Your task to perform on an android device: turn off priority inbox in the gmail app Image 0: 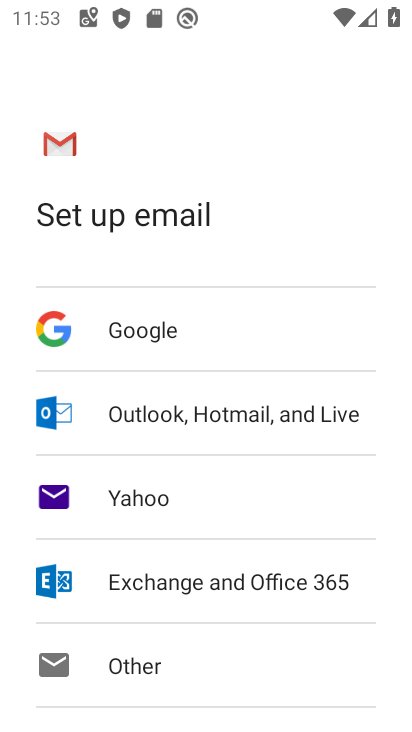
Step 0: press back button
Your task to perform on an android device: turn off priority inbox in the gmail app Image 1: 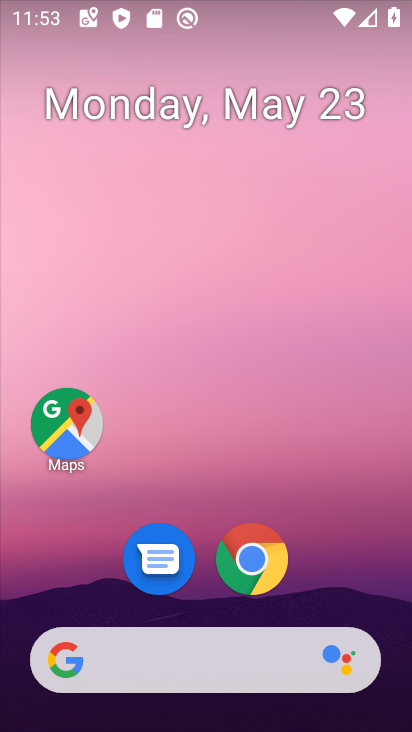
Step 1: drag from (286, 423) to (228, 2)
Your task to perform on an android device: turn off priority inbox in the gmail app Image 2: 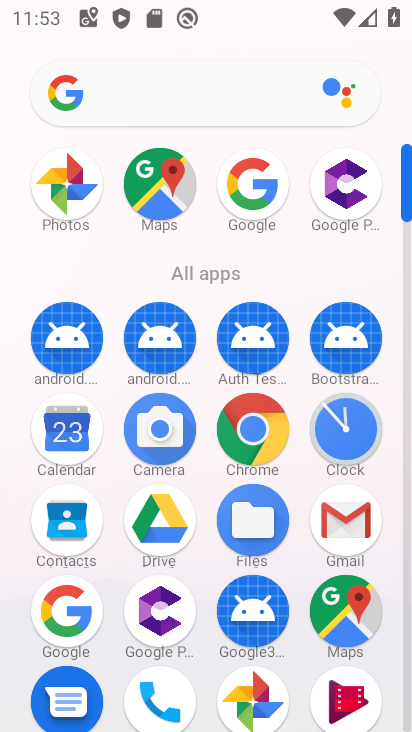
Step 2: click (343, 524)
Your task to perform on an android device: turn off priority inbox in the gmail app Image 3: 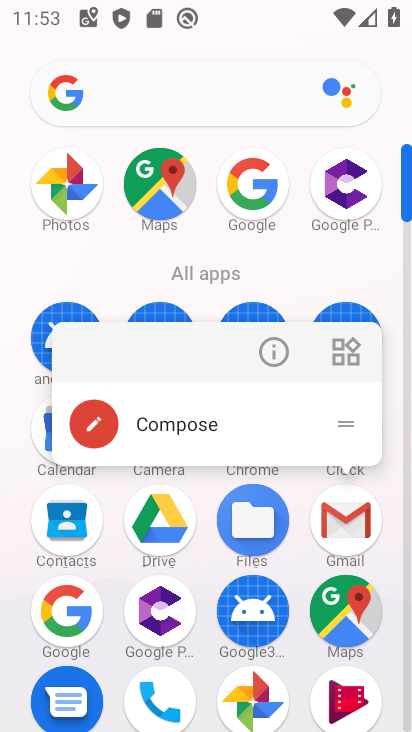
Step 3: click (349, 514)
Your task to perform on an android device: turn off priority inbox in the gmail app Image 4: 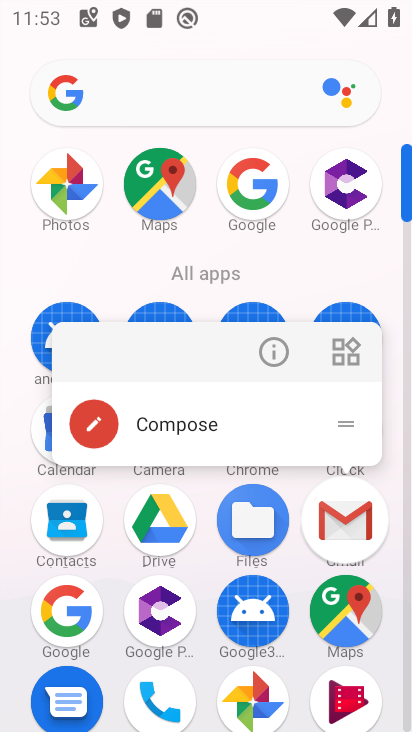
Step 4: click (349, 514)
Your task to perform on an android device: turn off priority inbox in the gmail app Image 5: 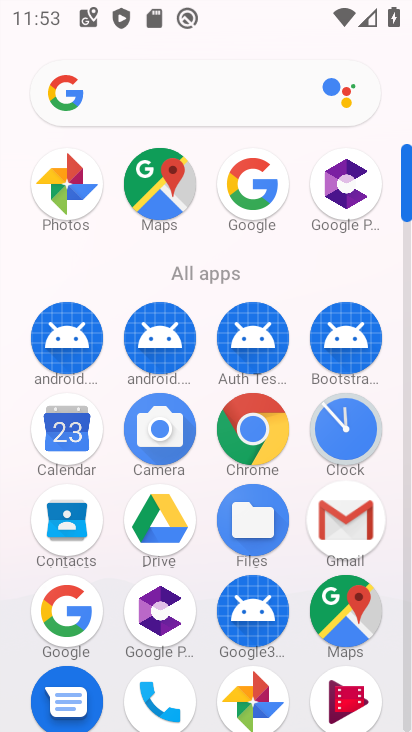
Step 5: click (349, 514)
Your task to perform on an android device: turn off priority inbox in the gmail app Image 6: 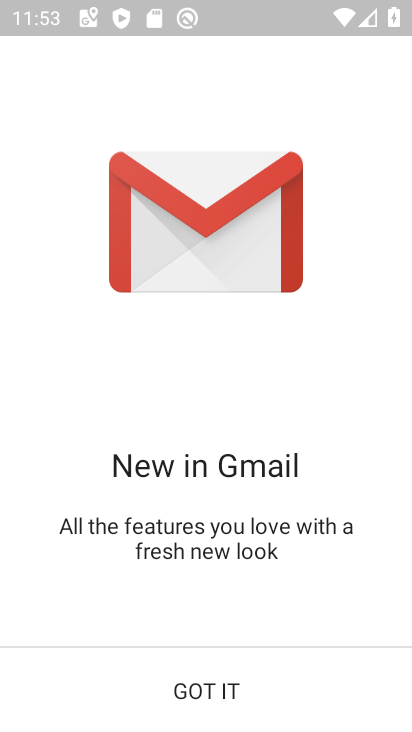
Step 6: click (197, 667)
Your task to perform on an android device: turn off priority inbox in the gmail app Image 7: 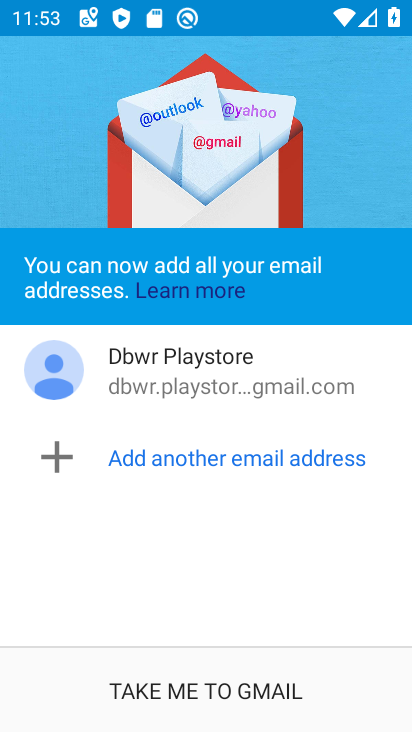
Step 7: click (235, 687)
Your task to perform on an android device: turn off priority inbox in the gmail app Image 8: 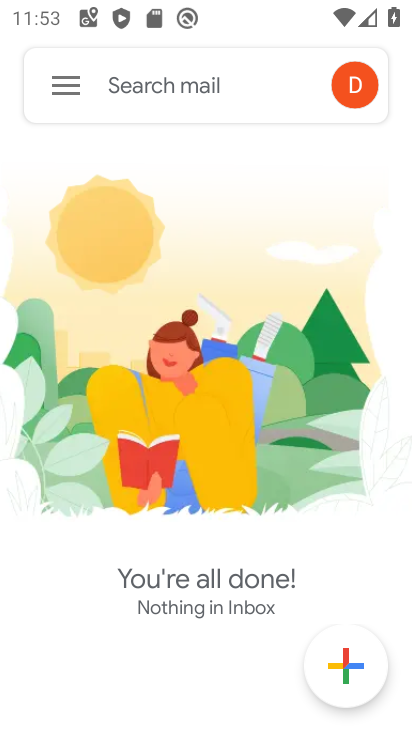
Step 8: click (58, 99)
Your task to perform on an android device: turn off priority inbox in the gmail app Image 9: 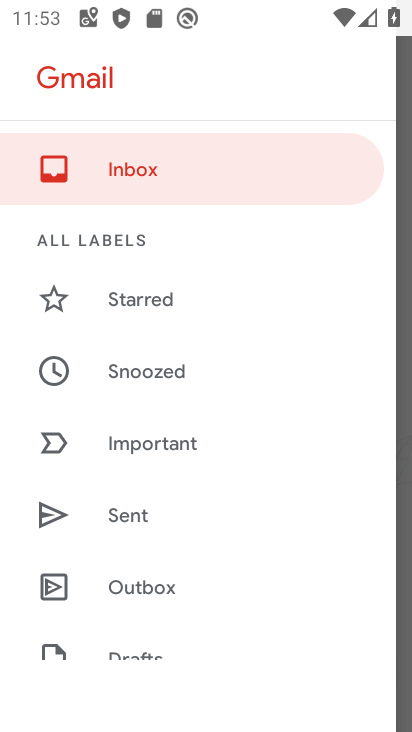
Step 9: drag from (156, 542) to (107, 196)
Your task to perform on an android device: turn off priority inbox in the gmail app Image 10: 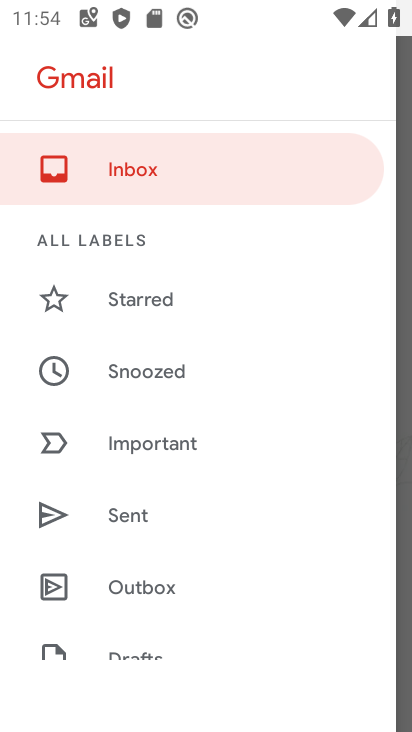
Step 10: drag from (123, 599) to (195, 303)
Your task to perform on an android device: turn off priority inbox in the gmail app Image 11: 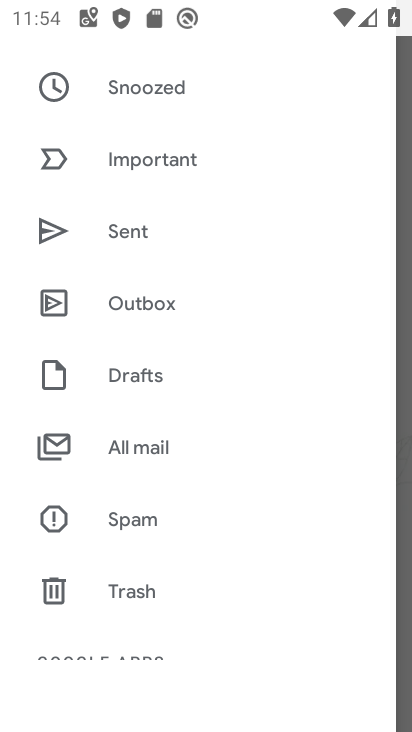
Step 11: drag from (139, 564) to (91, 116)
Your task to perform on an android device: turn off priority inbox in the gmail app Image 12: 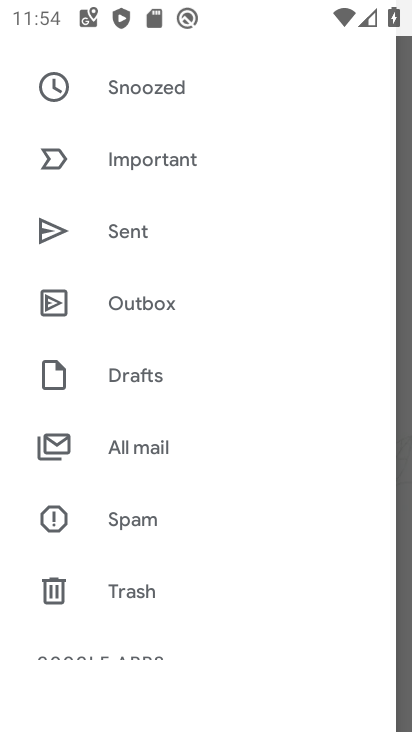
Step 12: drag from (149, 427) to (151, 87)
Your task to perform on an android device: turn off priority inbox in the gmail app Image 13: 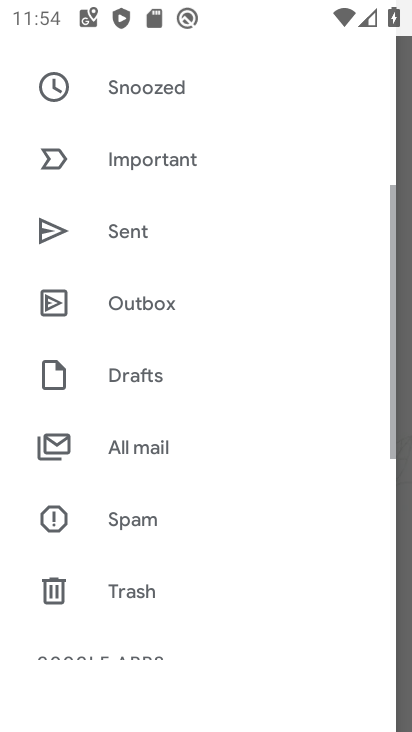
Step 13: drag from (152, 566) to (102, 100)
Your task to perform on an android device: turn off priority inbox in the gmail app Image 14: 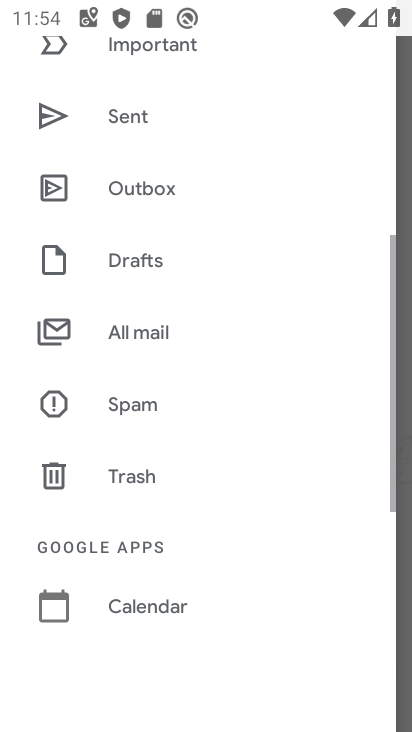
Step 14: drag from (166, 394) to (116, 220)
Your task to perform on an android device: turn off priority inbox in the gmail app Image 15: 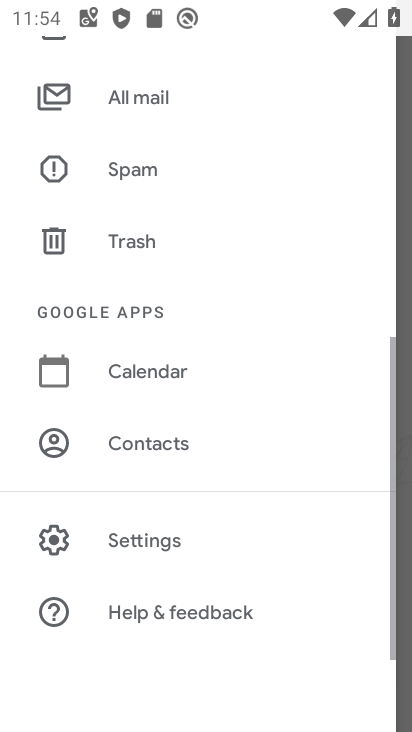
Step 15: drag from (138, 310) to (126, 60)
Your task to perform on an android device: turn off priority inbox in the gmail app Image 16: 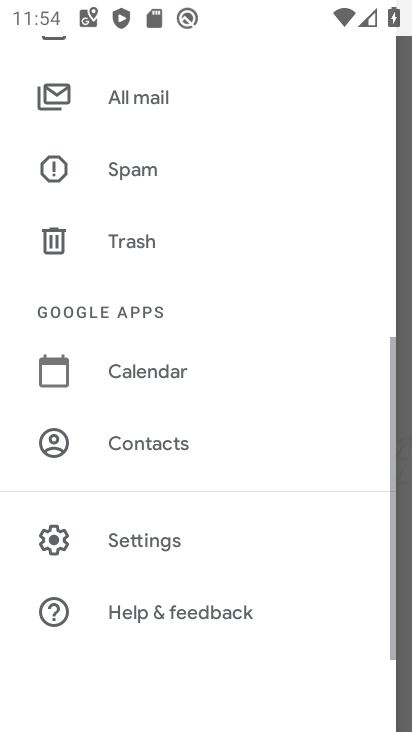
Step 16: drag from (194, 389) to (194, 59)
Your task to perform on an android device: turn off priority inbox in the gmail app Image 17: 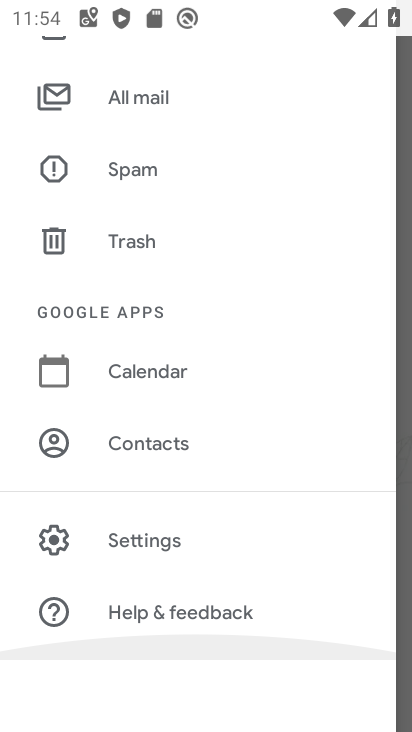
Step 17: click (121, 541)
Your task to perform on an android device: turn off priority inbox in the gmail app Image 18: 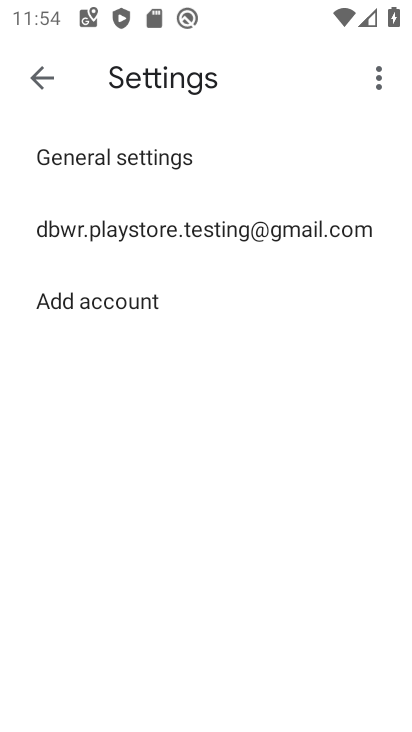
Step 18: click (153, 238)
Your task to perform on an android device: turn off priority inbox in the gmail app Image 19: 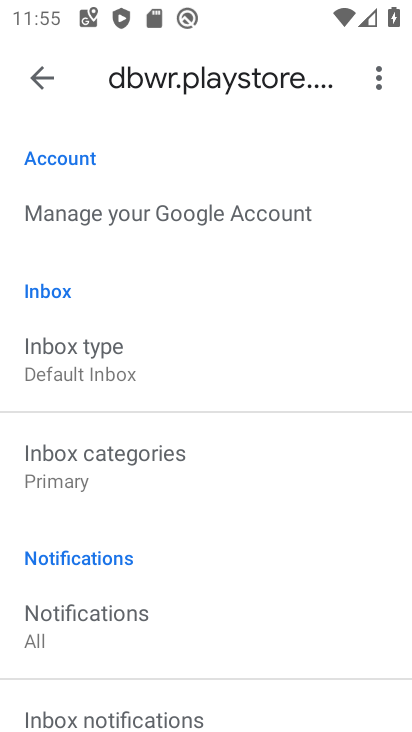
Step 19: click (134, 54)
Your task to perform on an android device: turn off priority inbox in the gmail app Image 20: 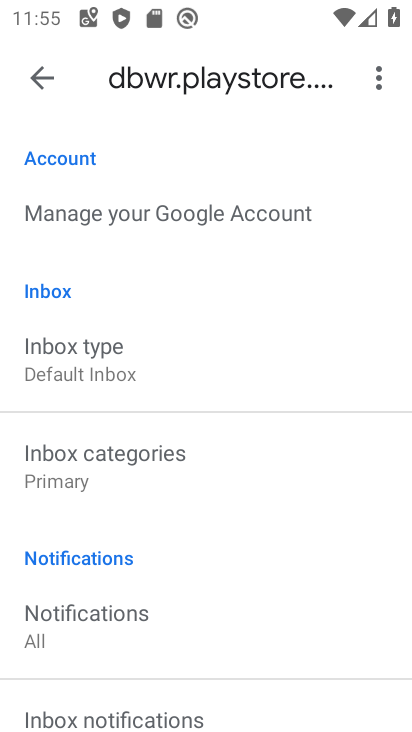
Step 20: click (49, 479)
Your task to perform on an android device: turn off priority inbox in the gmail app Image 21: 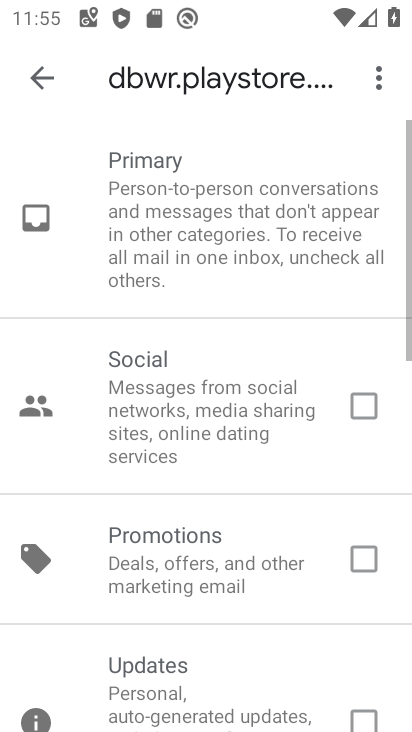
Step 21: click (88, 368)
Your task to perform on an android device: turn off priority inbox in the gmail app Image 22: 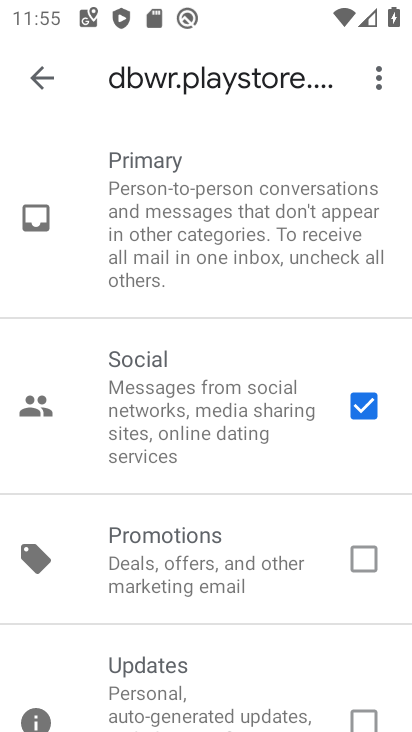
Step 22: click (95, 358)
Your task to perform on an android device: turn off priority inbox in the gmail app Image 23: 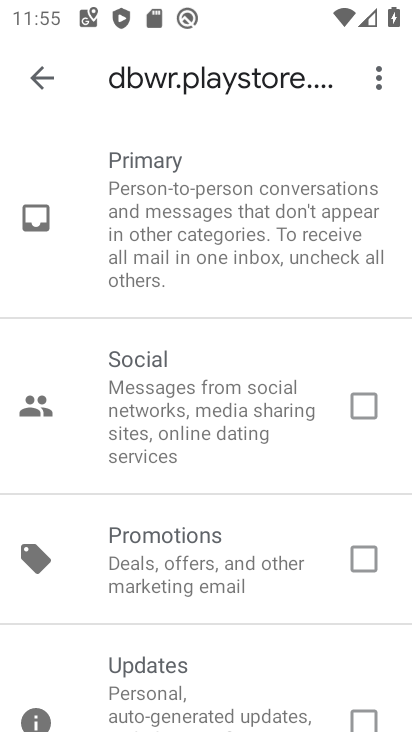
Step 23: click (36, 73)
Your task to perform on an android device: turn off priority inbox in the gmail app Image 24: 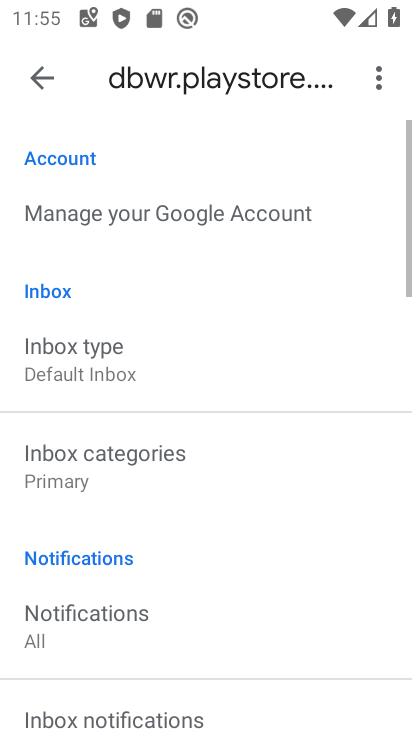
Step 24: click (46, 82)
Your task to perform on an android device: turn off priority inbox in the gmail app Image 25: 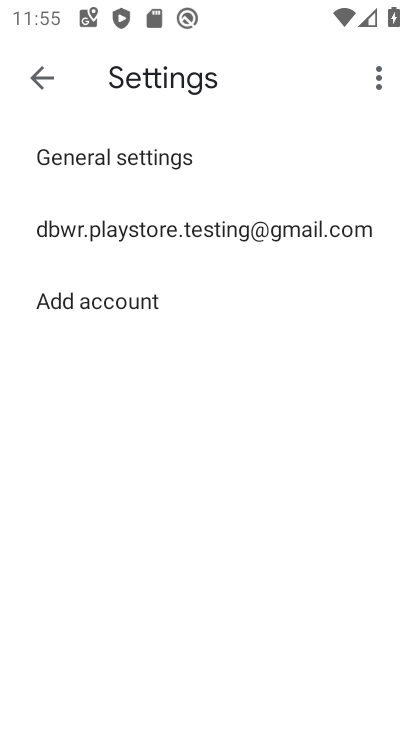
Step 25: click (60, 364)
Your task to perform on an android device: turn off priority inbox in the gmail app Image 26: 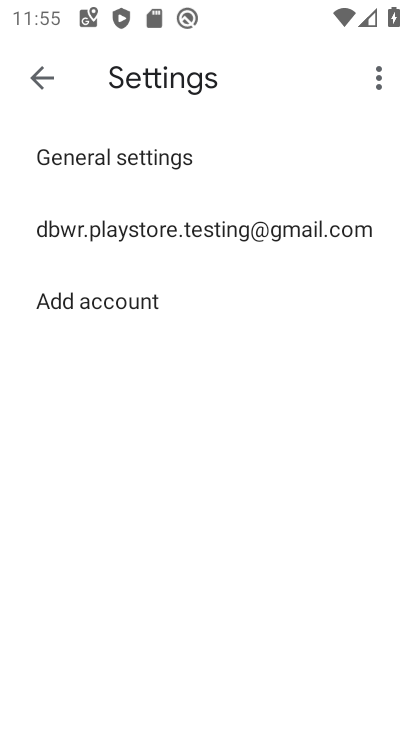
Step 26: click (34, 72)
Your task to perform on an android device: turn off priority inbox in the gmail app Image 27: 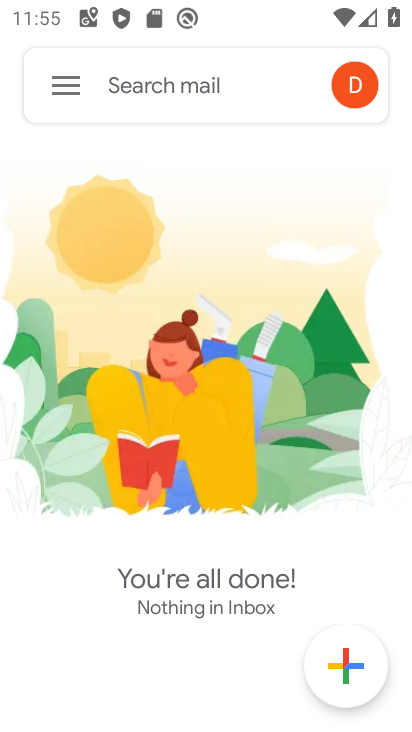
Step 27: click (34, 72)
Your task to perform on an android device: turn off priority inbox in the gmail app Image 28: 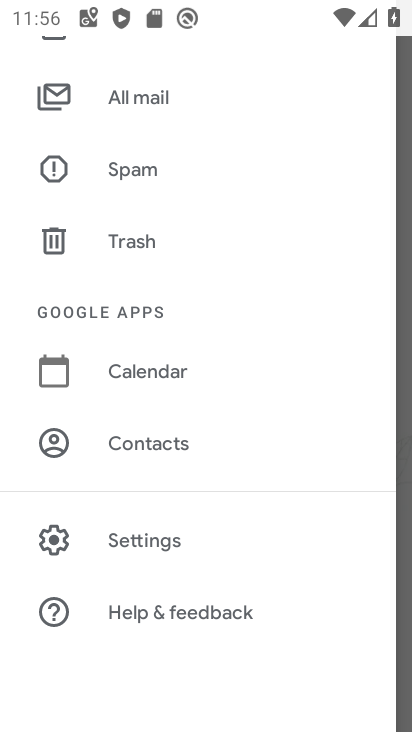
Step 28: click (65, 92)
Your task to perform on an android device: turn off priority inbox in the gmail app Image 29: 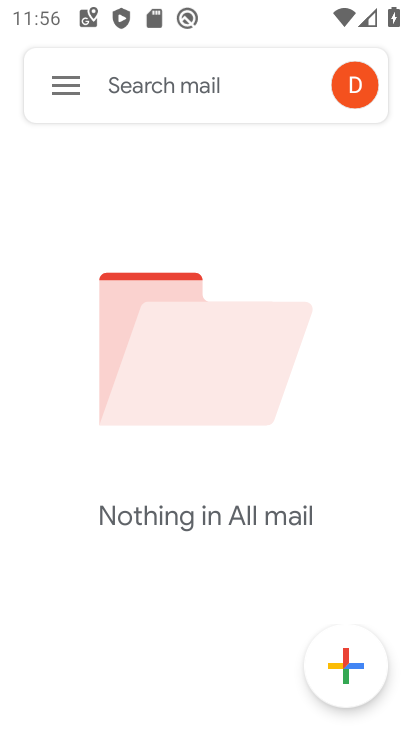
Step 29: click (139, 553)
Your task to perform on an android device: turn off priority inbox in the gmail app Image 30: 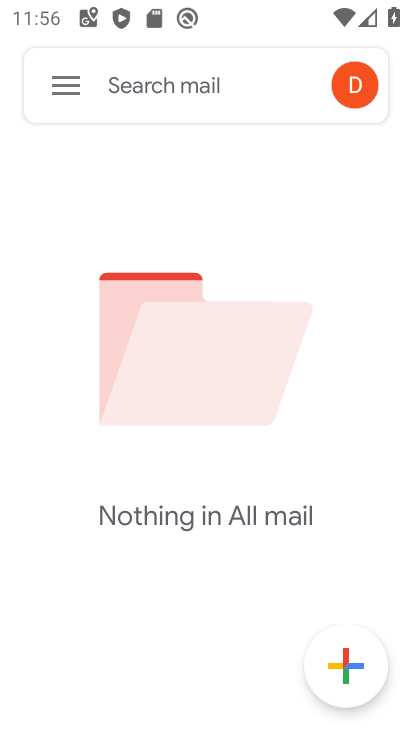
Step 30: click (74, 85)
Your task to perform on an android device: turn off priority inbox in the gmail app Image 31: 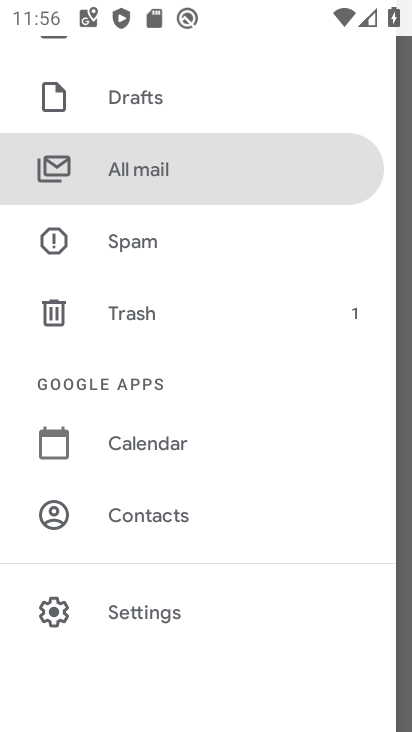
Step 31: task complete